Your task to perform on an android device: turn off javascript in the chrome app Image 0: 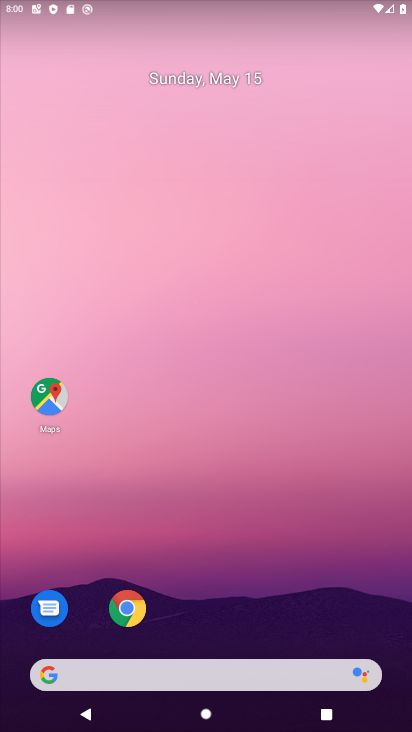
Step 0: drag from (320, 615) to (220, 107)
Your task to perform on an android device: turn off javascript in the chrome app Image 1: 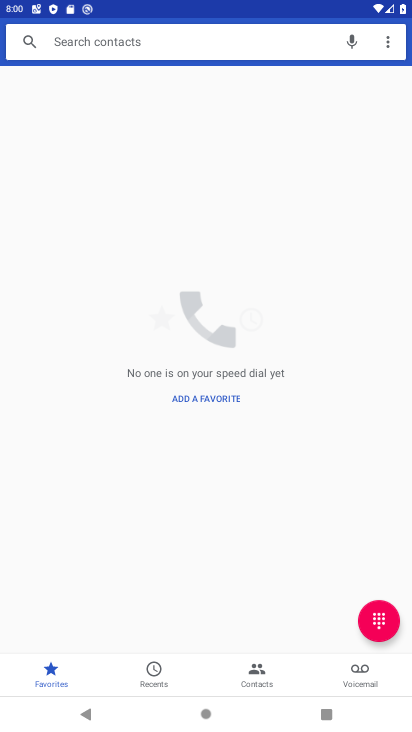
Step 1: press back button
Your task to perform on an android device: turn off javascript in the chrome app Image 2: 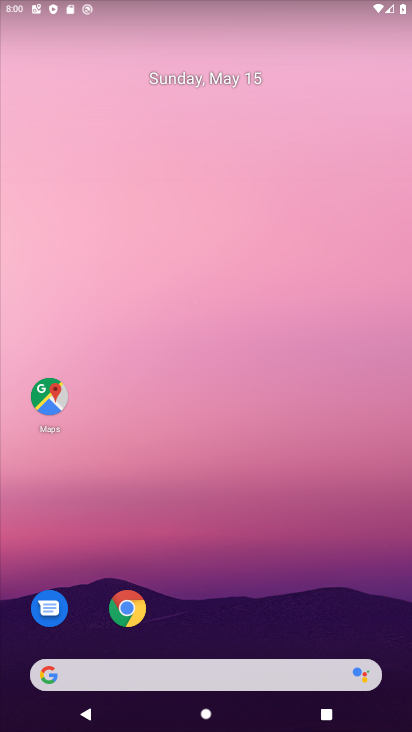
Step 2: drag from (285, 565) to (223, 139)
Your task to perform on an android device: turn off javascript in the chrome app Image 3: 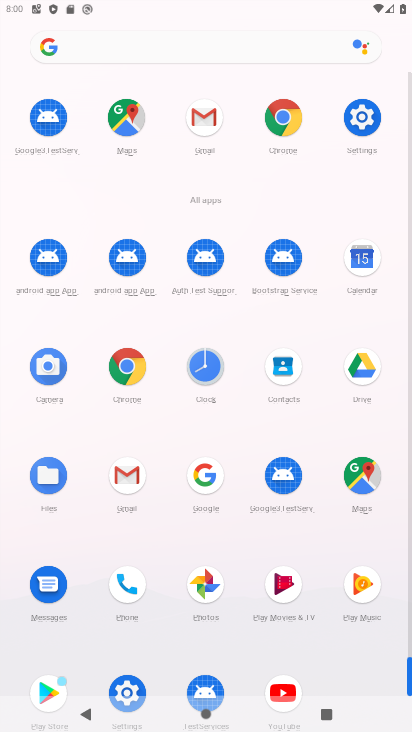
Step 3: click (125, 371)
Your task to perform on an android device: turn off javascript in the chrome app Image 4: 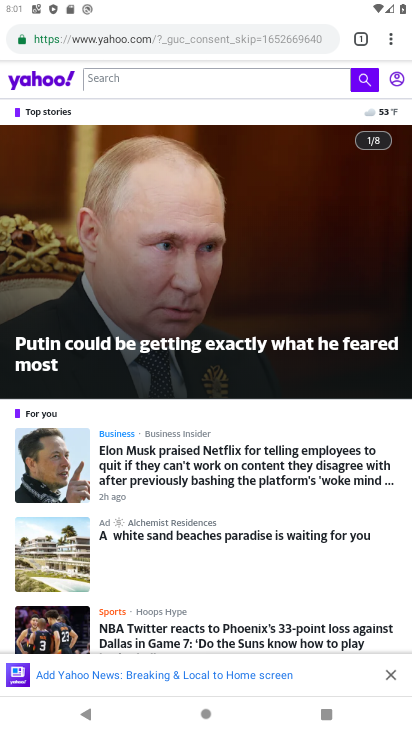
Step 4: drag from (392, 38) to (239, 467)
Your task to perform on an android device: turn off javascript in the chrome app Image 5: 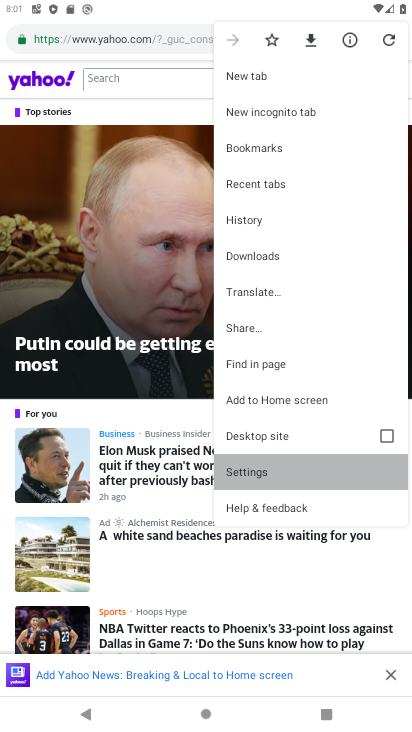
Step 5: click (239, 467)
Your task to perform on an android device: turn off javascript in the chrome app Image 6: 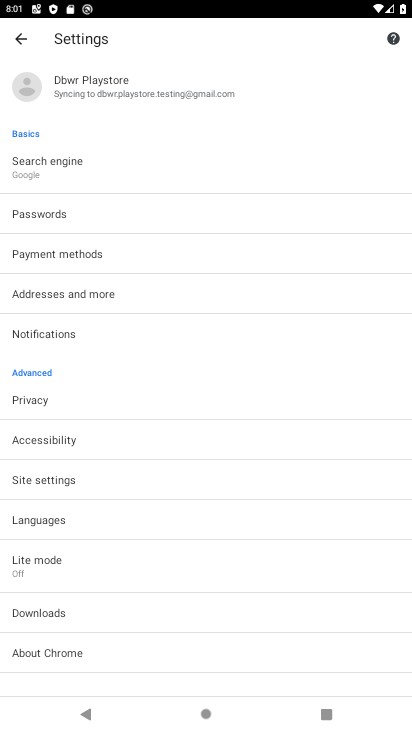
Step 6: click (38, 476)
Your task to perform on an android device: turn off javascript in the chrome app Image 7: 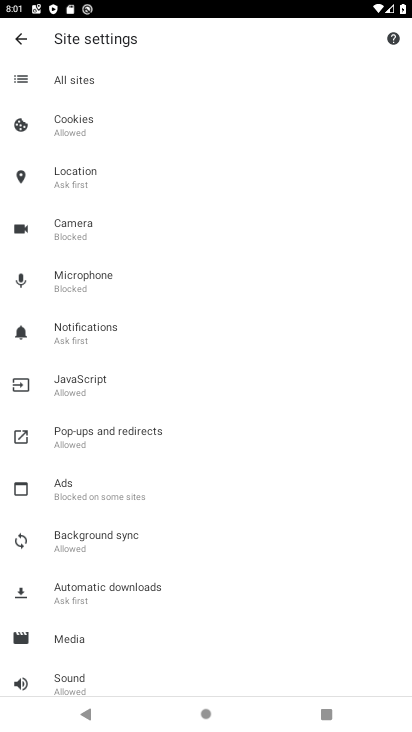
Step 7: click (71, 383)
Your task to perform on an android device: turn off javascript in the chrome app Image 8: 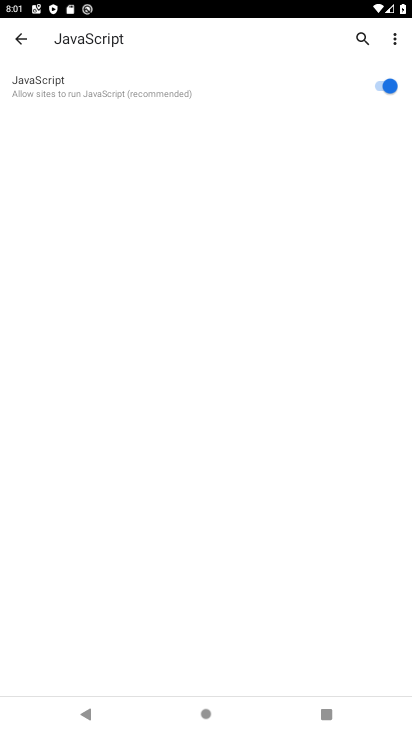
Step 8: click (387, 86)
Your task to perform on an android device: turn off javascript in the chrome app Image 9: 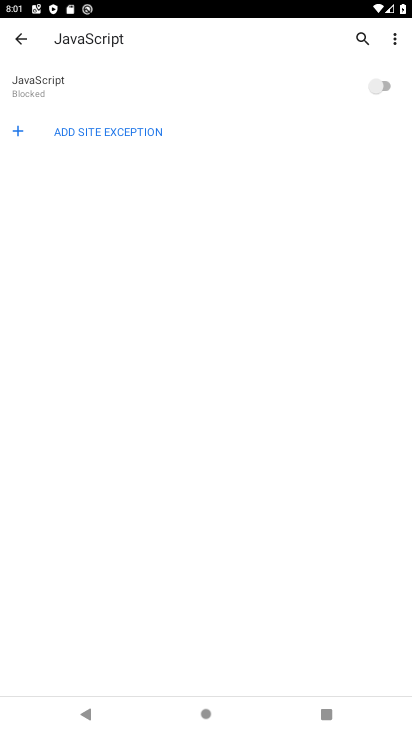
Step 9: task complete